Your task to perform on an android device: Open Maps and search for coffee Image 0: 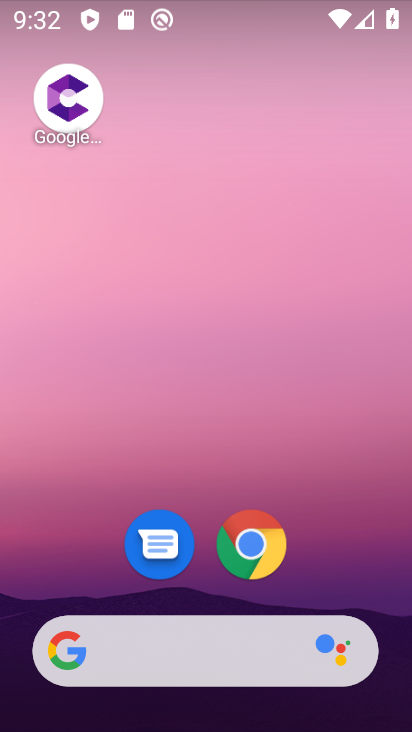
Step 0: drag from (149, 671) to (340, 124)
Your task to perform on an android device: Open Maps and search for coffee Image 1: 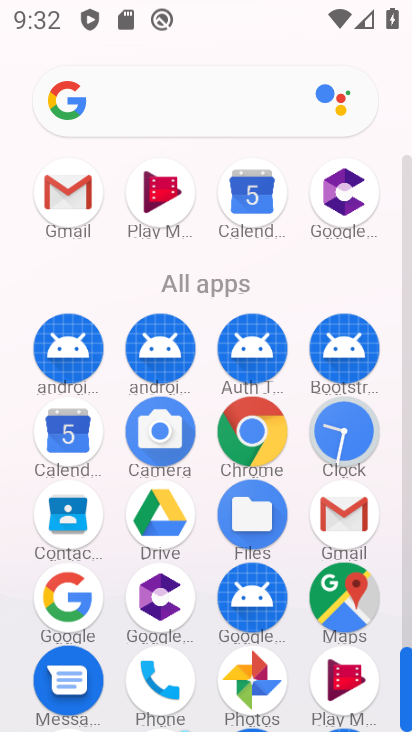
Step 1: click (326, 591)
Your task to perform on an android device: Open Maps and search for coffee Image 2: 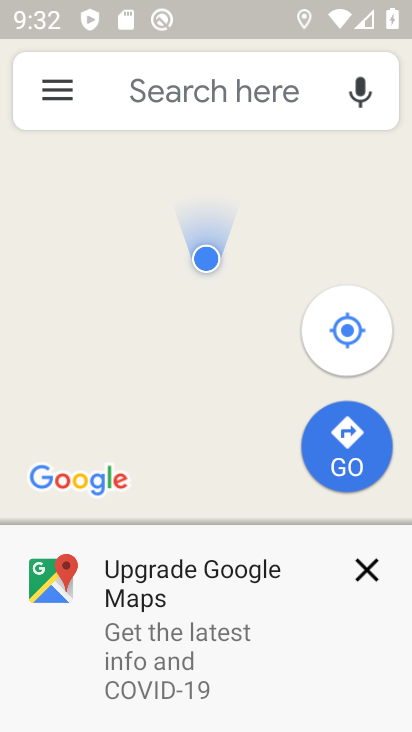
Step 2: click (204, 105)
Your task to perform on an android device: Open Maps and search for coffee Image 3: 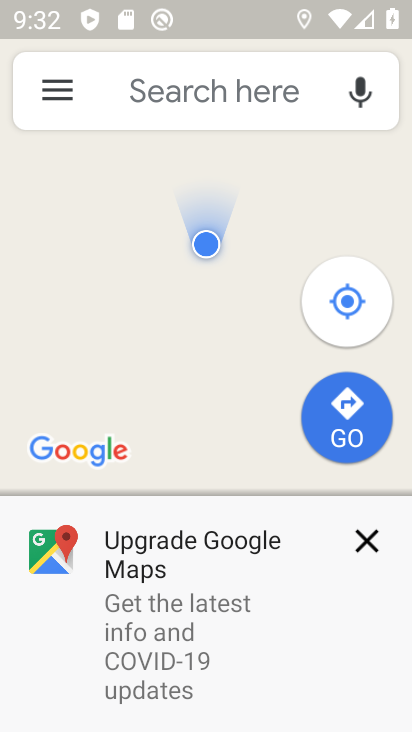
Step 3: click (204, 105)
Your task to perform on an android device: Open Maps and search for coffee Image 4: 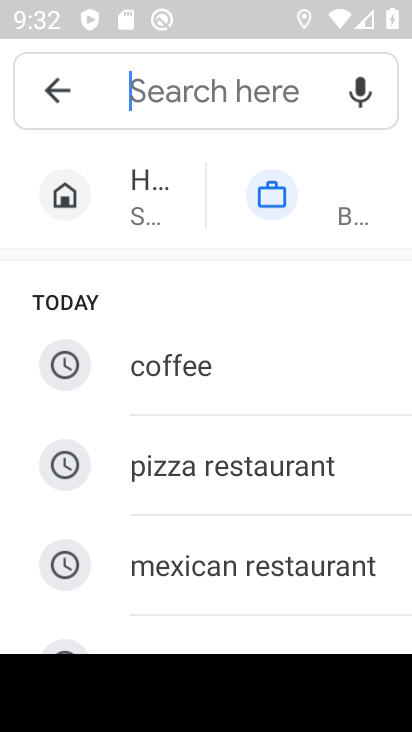
Step 4: type "coffee"
Your task to perform on an android device: Open Maps and search for coffee Image 5: 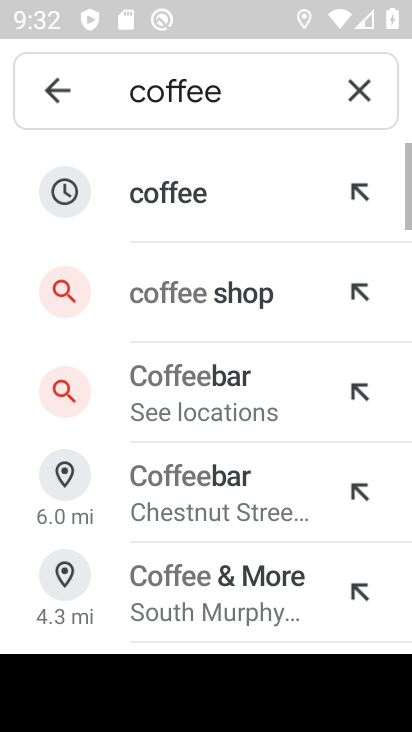
Step 5: click (255, 197)
Your task to perform on an android device: Open Maps and search for coffee Image 6: 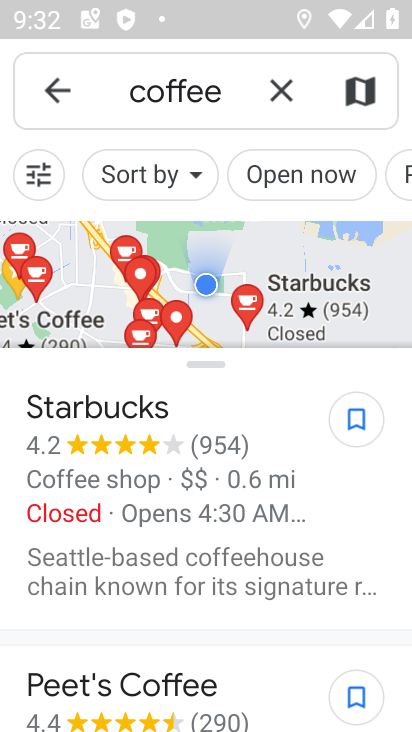
Step 6: task complete